Your task to perform on an android device: visit the assistant section in the google photos Image 0: 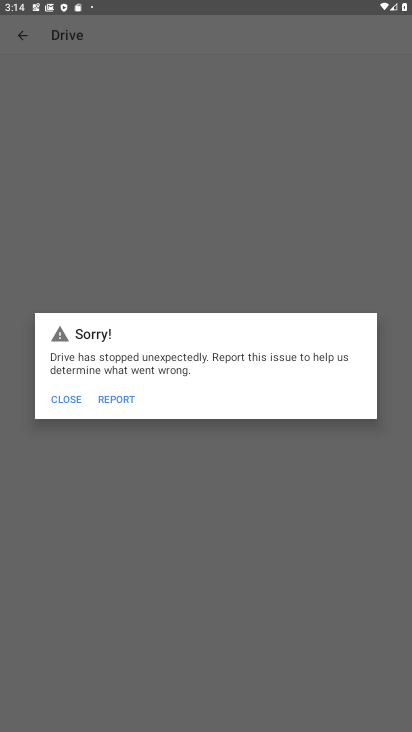
Step 0: press home button
Your task to perform on an android device: visit the assistant section in the google photos Image 1: 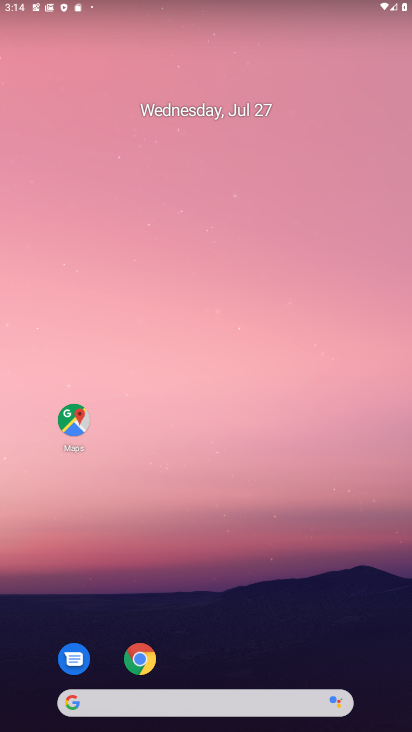
Step 1: drag from (223, 683) to (220, 132)
Your task to perform on an android device: visit the assistant section in the google photos Image 2: 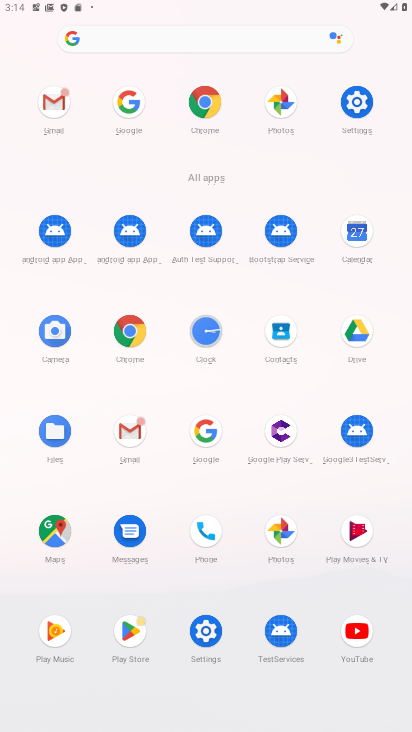
Step 2: click (273, 534)
Your task to perform on an android device: visit the assistant section in the google photos Image 3: 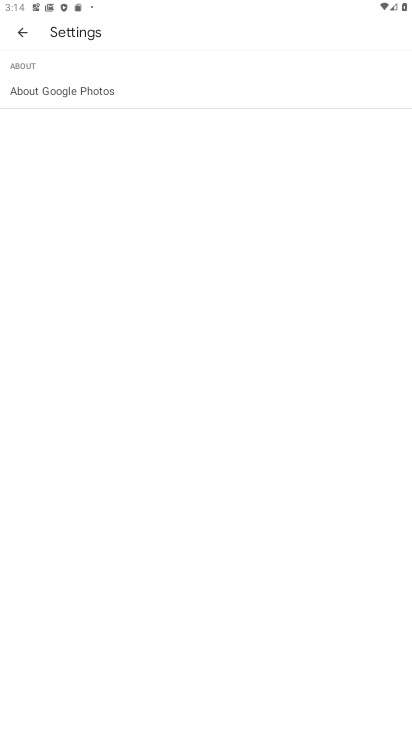
Step 3: click (16, 35)
Your task to perform on an android device: visit the assistant section in the google photos Image 4: 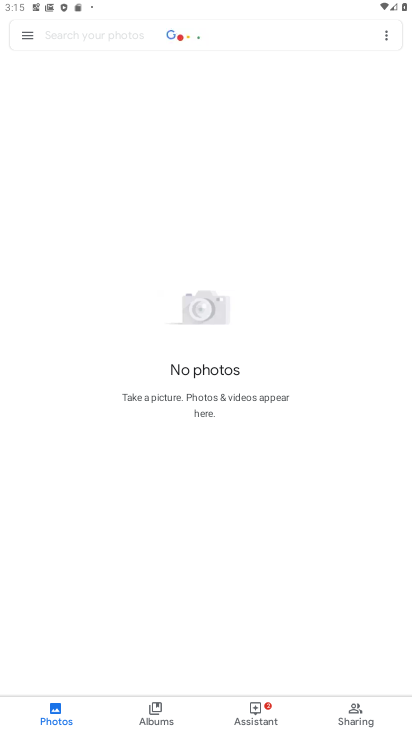
Step 4: click (253, 716)
Your task to perform on an android device: visit the assistant section in the google photos Image 5: 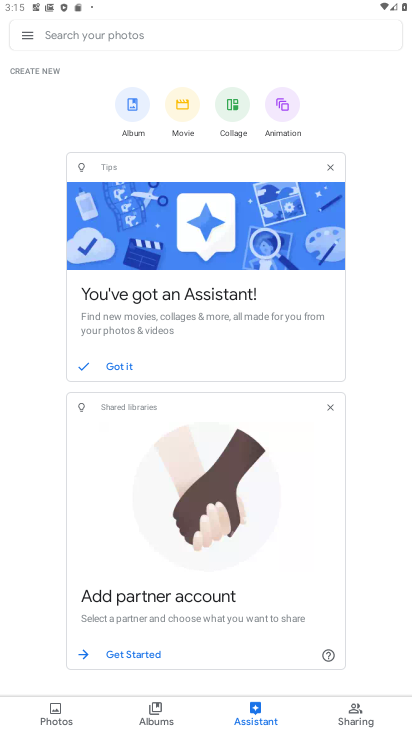
Step 5: task complete